Your task to perform on an android device: open app "VLC for Android" Image 0: 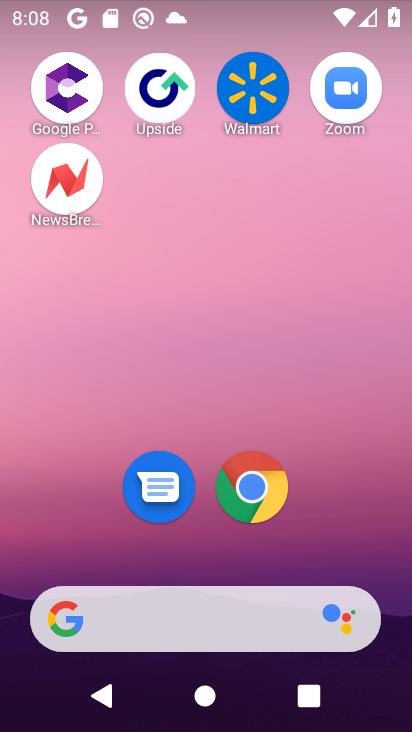
Step 0: drag from (227, 304) to (167, 97)
Your task to perform on an android device: open app "VLC for Android" Image 1: 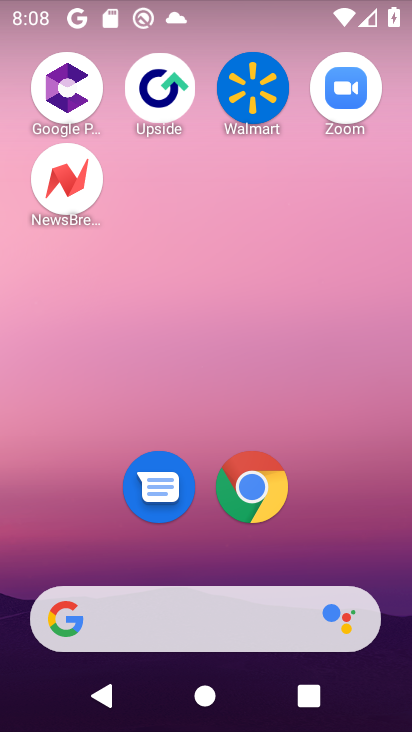
Step 1: drag from (244, 512) to (149, 79)
Your task to perform on an android device: open app "VLC for Android" Image 2: 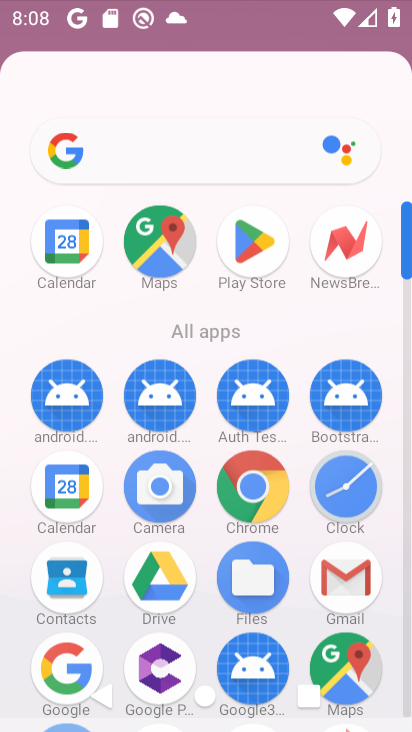
Step 2: drag from (267, 380) to (292, 8)
Your task to perform on an android device: open app "VLC for Android" Image 3: 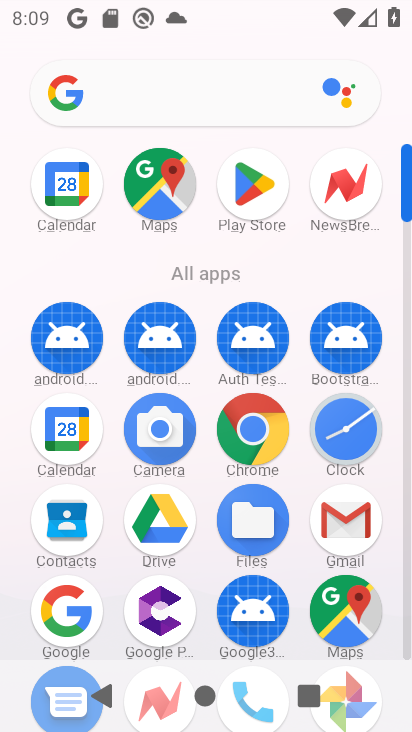
Step 3: click (240, 184)
Your task to perform on an android device: open app "VLC for Android" Image 4: 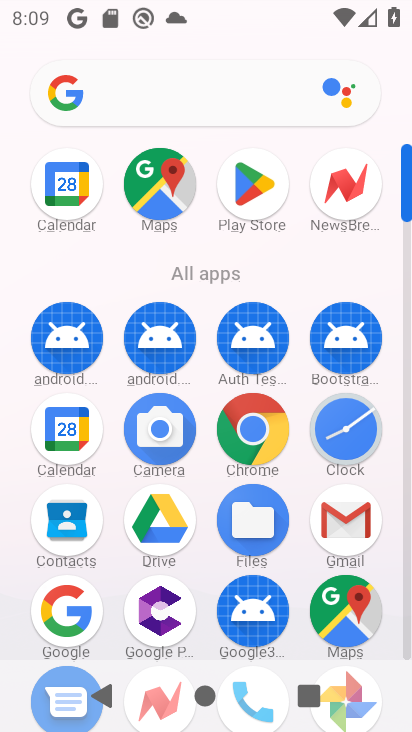
Step 4: click (240, 184)
Your task to perform on an android device: open app "VLC for Android" Image 5: 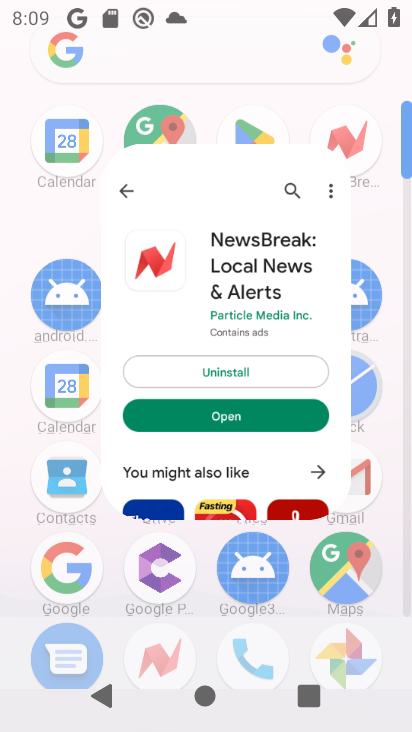
Step 5: click (240, 184)
Your task to perform on an android device: open app "VLC for Android" Image 6: 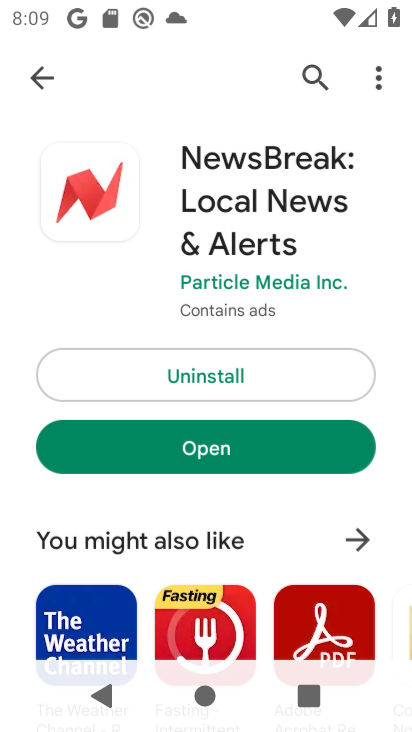
Step 6: click (247, 185)
Your task to perform on an android device: open app "VLC for Android" Image 7: 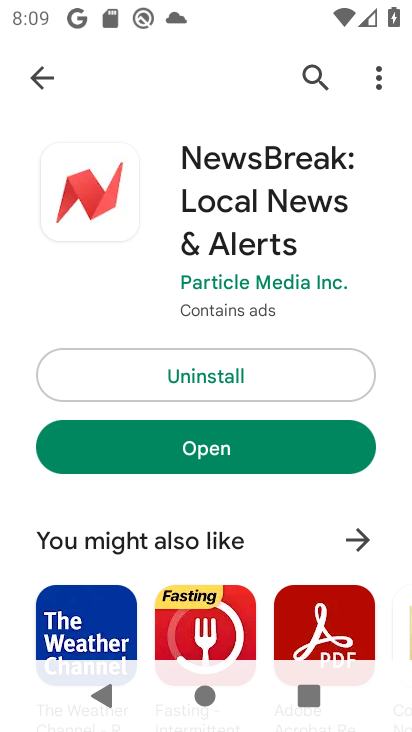
Step 7: click (263, 189)
Your task to perform on an android device: open app "VLC for Android" Image 8: 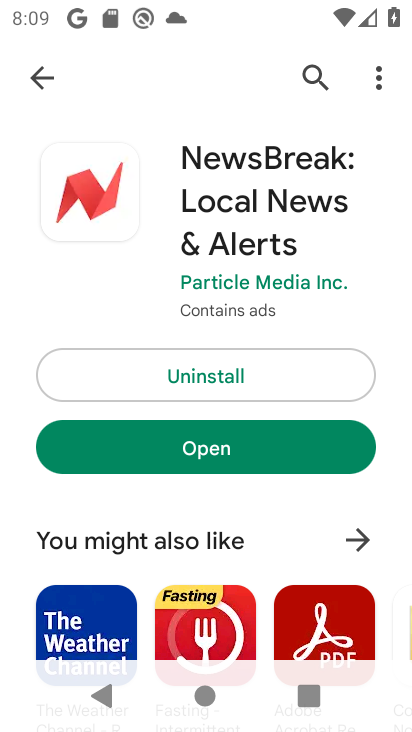
Step 8: click (268, 193)
Your task to perform on an android device: open app "VLC for Android" Image 9: 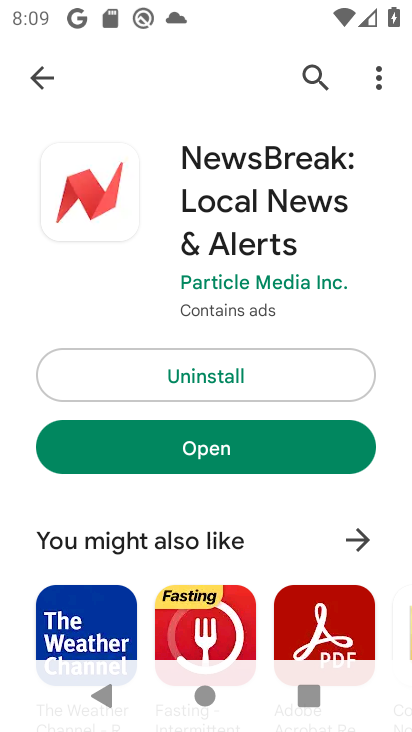
Step 9: click (50, 71)
Your task to perform on an android device: open app "VLC for Android" Image 10: 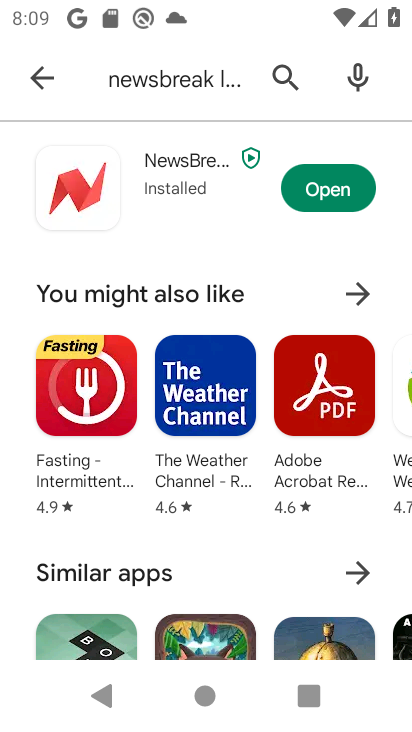
Step 10: click (42, 80)
Your task to perform on an android device: open app "VLC for Android" Image 11: 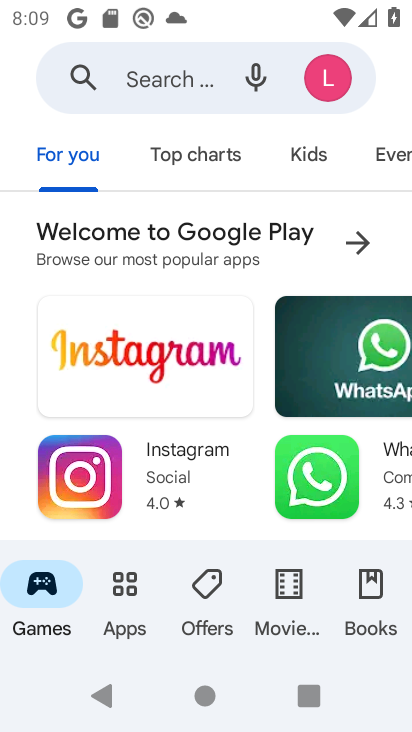
Step 11: click (141, 77)
Your task to perform on an android device: open app "VLC for Android" Image 12: 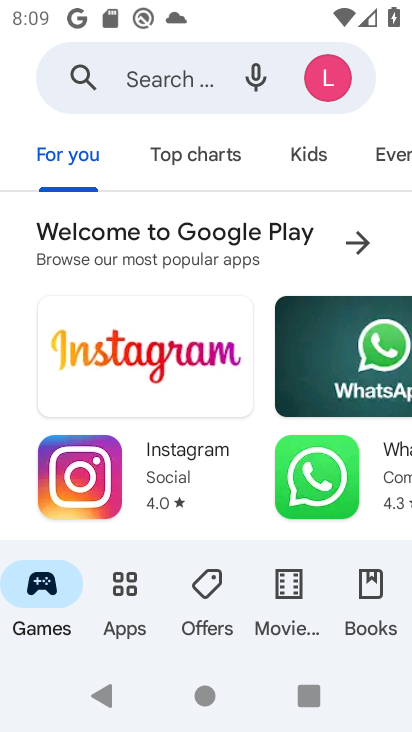
Step 12: click (143, 77)
Your task to perform on an android device: open app "VLC for Android" Image 13: 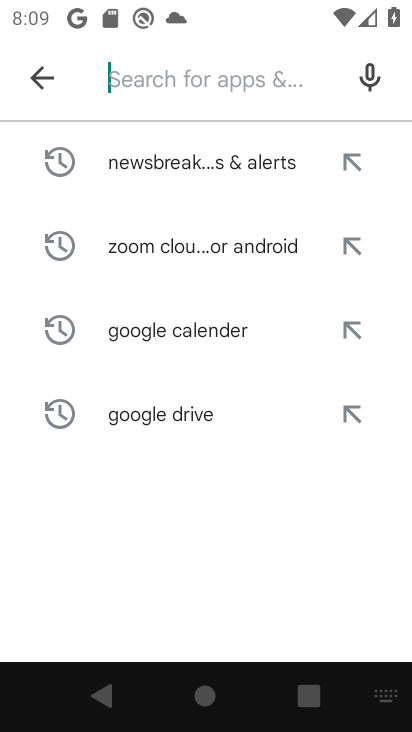
Step 13: click (143, 77)
Your task to perform on an android device: open app "VLC for Android" Image 14: 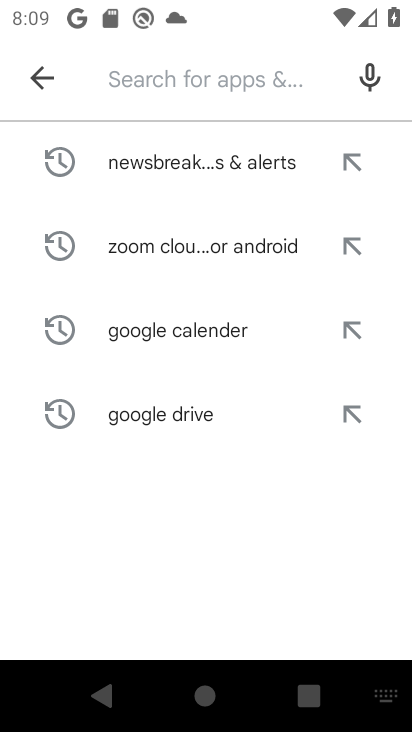
Step 14: type "VLC for Android"
Your task to perform on an android device: open app "VLC for Android" Image 15: 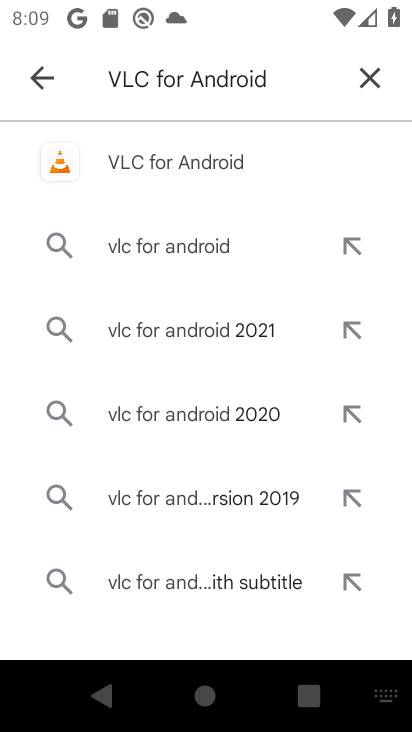
Step 15: click (170, 157)
Your task to perform on an android device: open app "VLC for Android" Image 16: 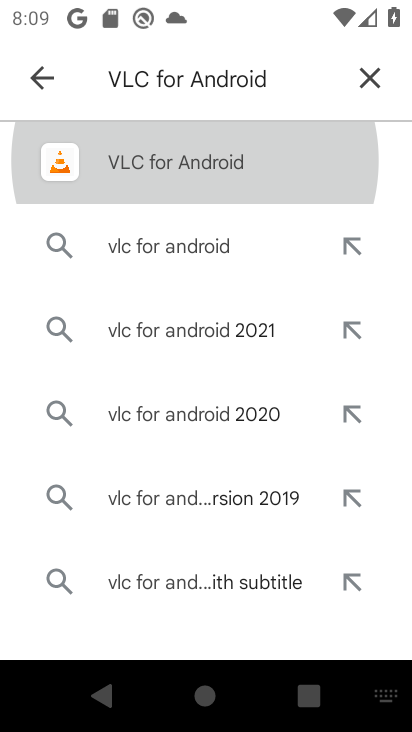
Step 16: click (166, 152)
Your task to perform on an android device: open app "VLC for Android" Image 17: 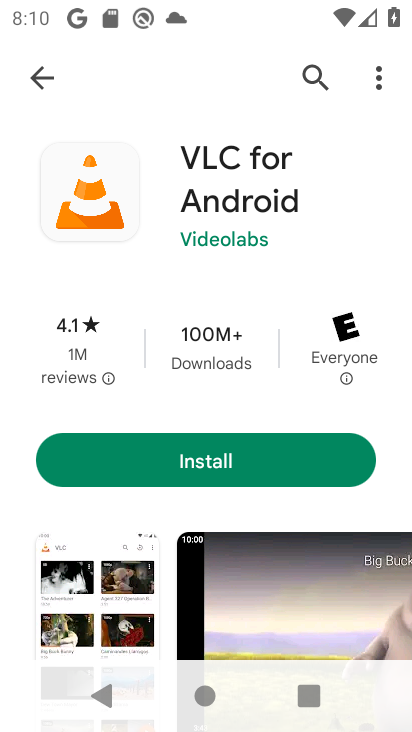
Step 17: click (230, 461)
Your task to perform on an android device: open app "VLC for Android" Image 18: 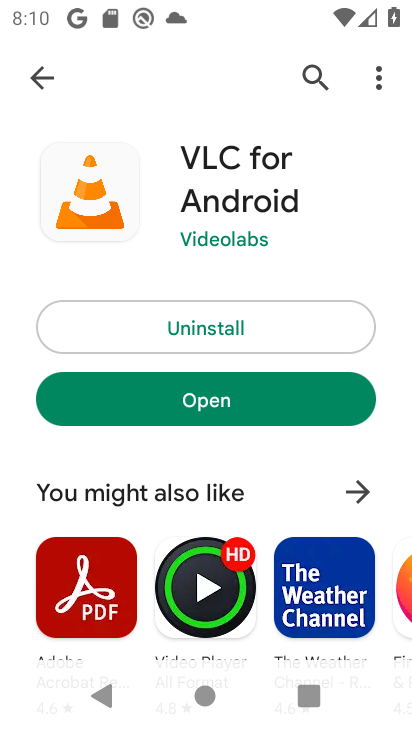
Step 18: click (242, 391)
Your task to perform on an android device: open app "VLC for Android" Image 19: 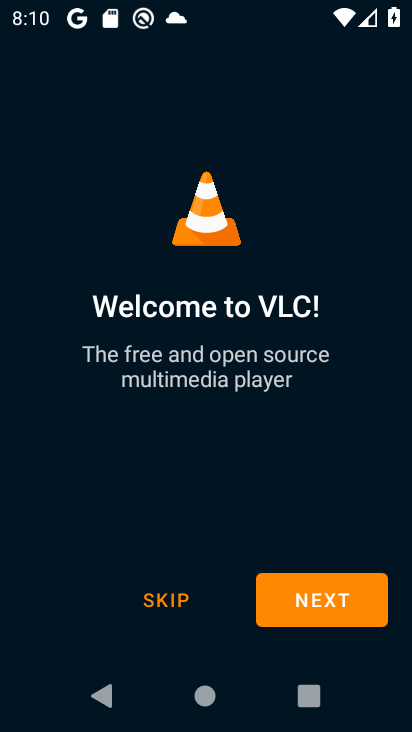
Step 19: click (171, 600)
Your task to perform on an android device: open app "VLC for Android" Image 20: 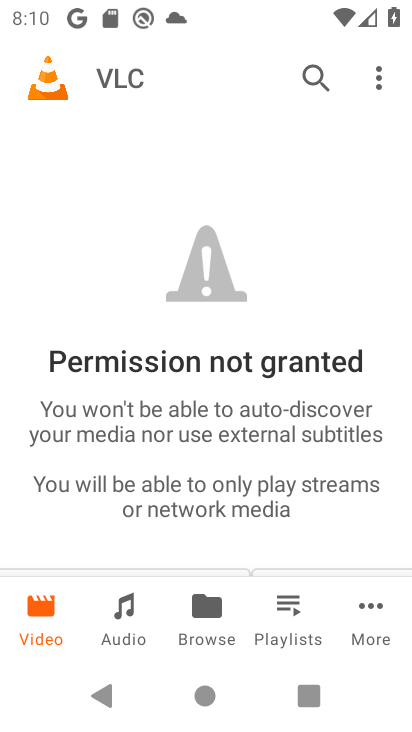
Step 20: task complete